Your task to perform on an android device: turn on bluetooth scan Image 0: 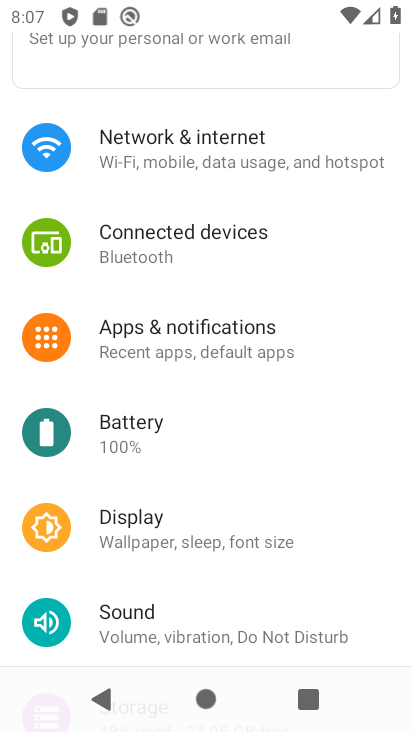
Step 0: drag from (182, 594) to (141, 175)
Your task to perform on an android device: turn on bluetooth scan Image 1: 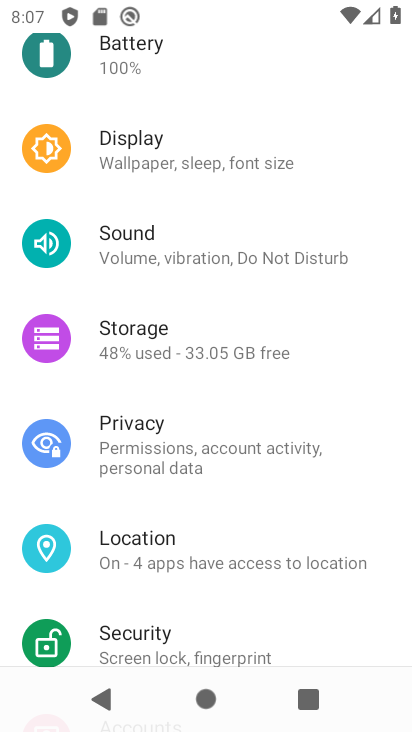
Step 1: click (144, 548)
Your task to perform on an android device: turn on bluetooth scan Image 2: 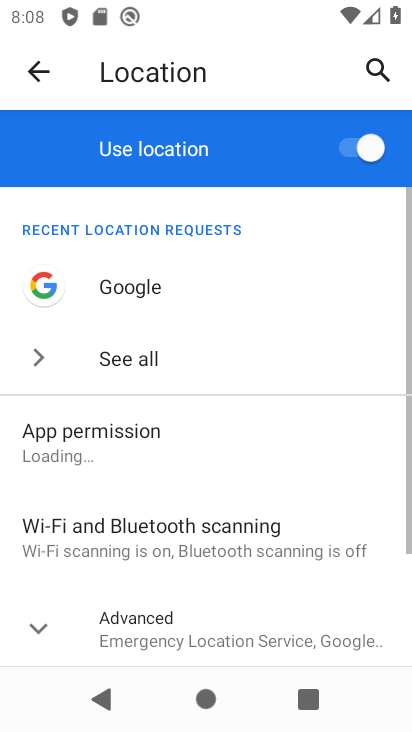
Step 2: click (169, 558)
Your task to perform on an android device: turn on bluetooth scan Image 3: 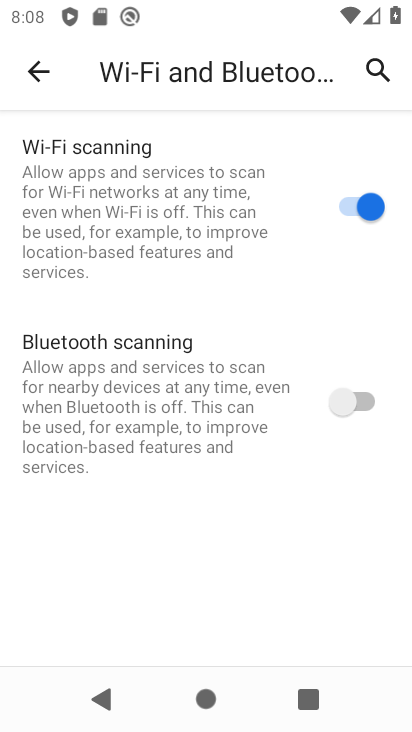
Step 3: click (344, 407)
Your task to perform on an android device: turn on bluetooth scan Image 4: 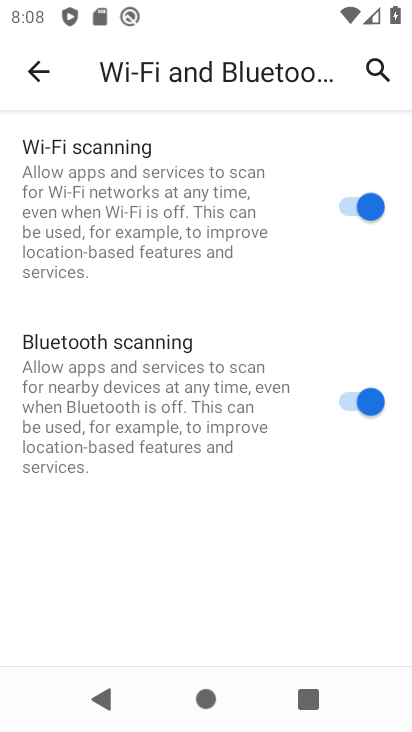
Step 4: task complete